Your task to perform on an android device: turn on sleep mode Image 0: 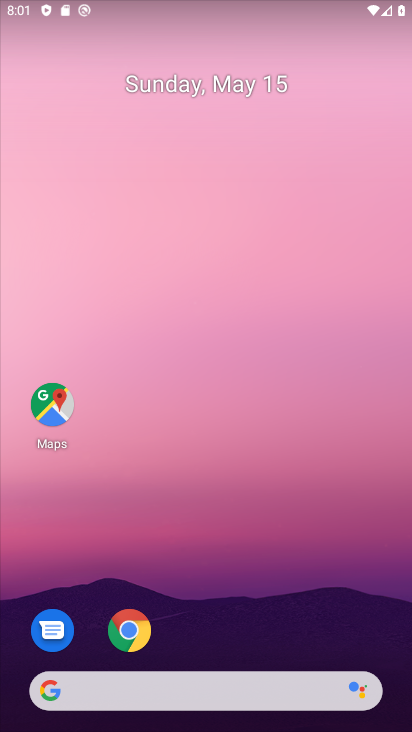
Step 0: drag from (214, 653) to (294, 53)
Your task to perform on an android device: turn on sleep mode Image 1: 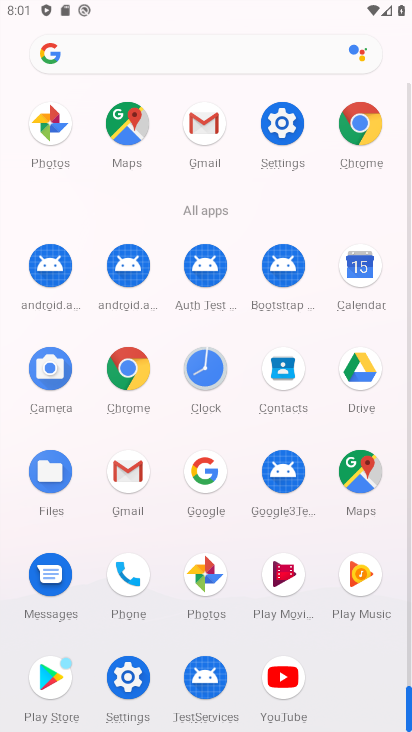
Step 1: click (290, 132)
Your task to perform on an android device: turn on sleep mode Image 2: 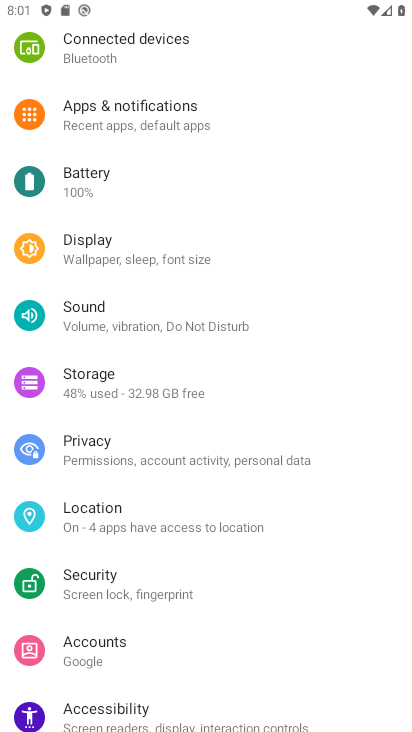
Step 2: drag from (232, 143) to (218, 557)
Your task to perform on an android device: turn on sleep mode Image 3: 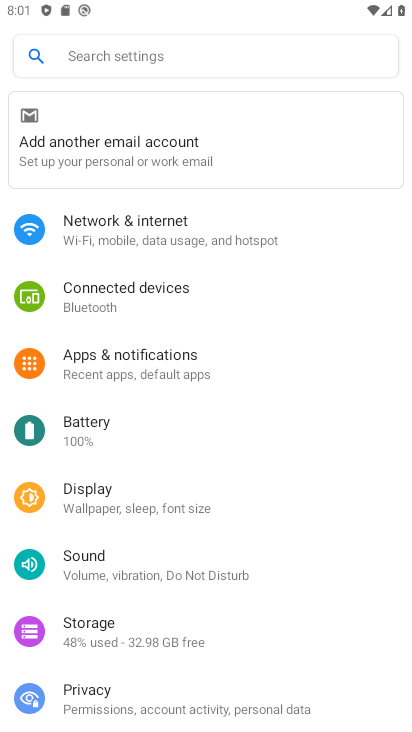
Step 3: click (200, 56)
Your task to perform on an android device: turn on sleep mode Image 4: 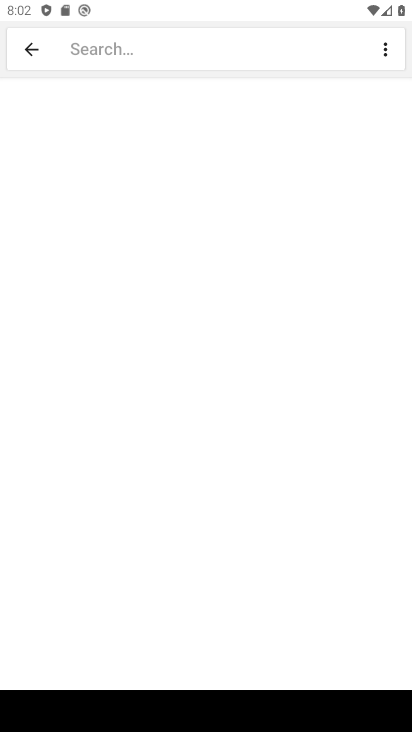
Step 4: type ""
Your task to perform on an android device: turn on sleep mode Image 5: 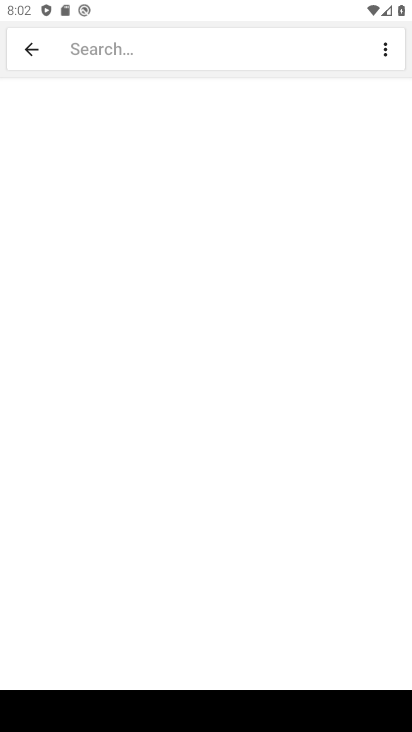
Step 5: type "sleep mode"
Your task to perform on an android device: turn on sleep mode Image 6: 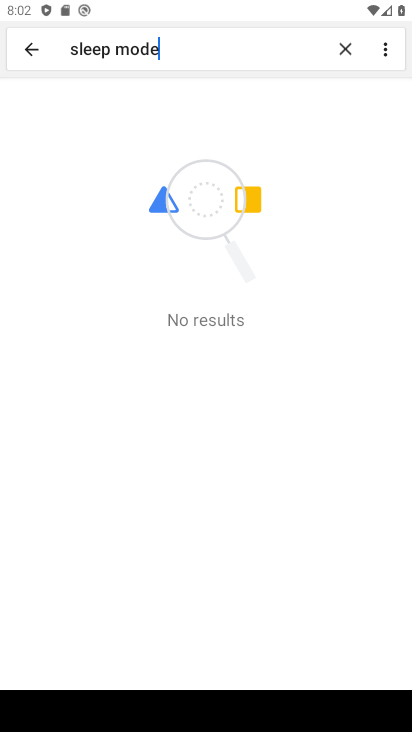
Step 6: task complete